Your task to perform on an android device: set default search engine in the chrome app Image 0: 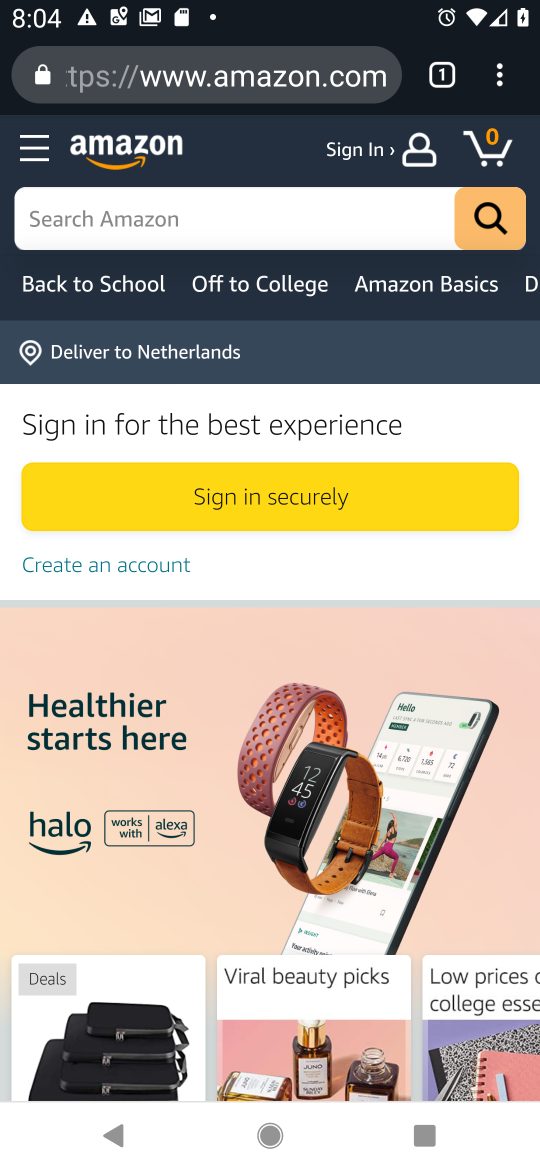
Step 0: press home button
Your task to perform on an android device: set default search engine in the chrome app Image 1: 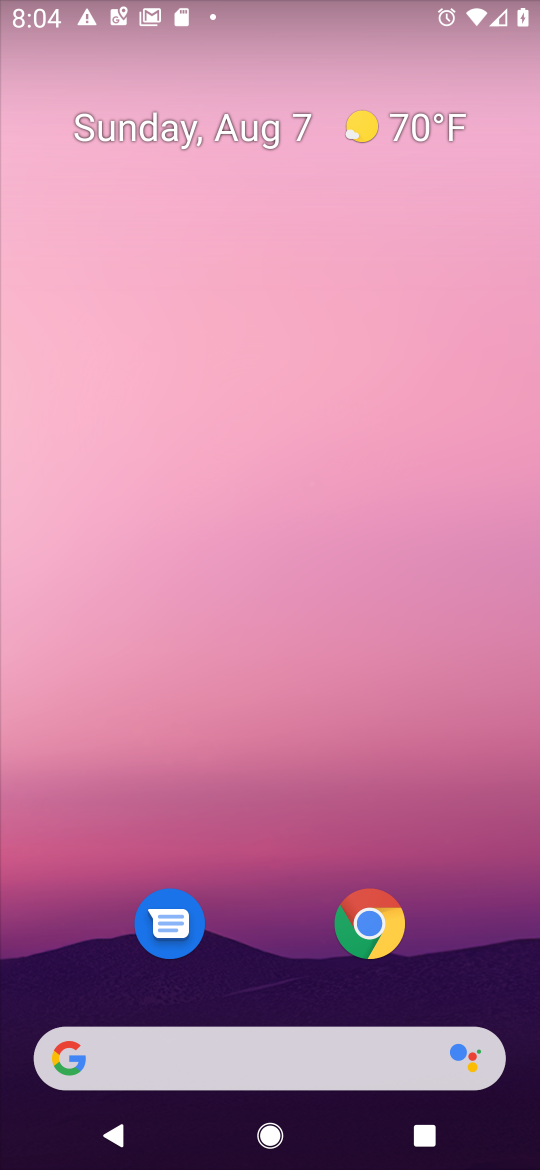
Step 1: drag from (475, 990) to (287, 211)
Your task to perform on an android device: set default search engine in the chrome app Image 2: 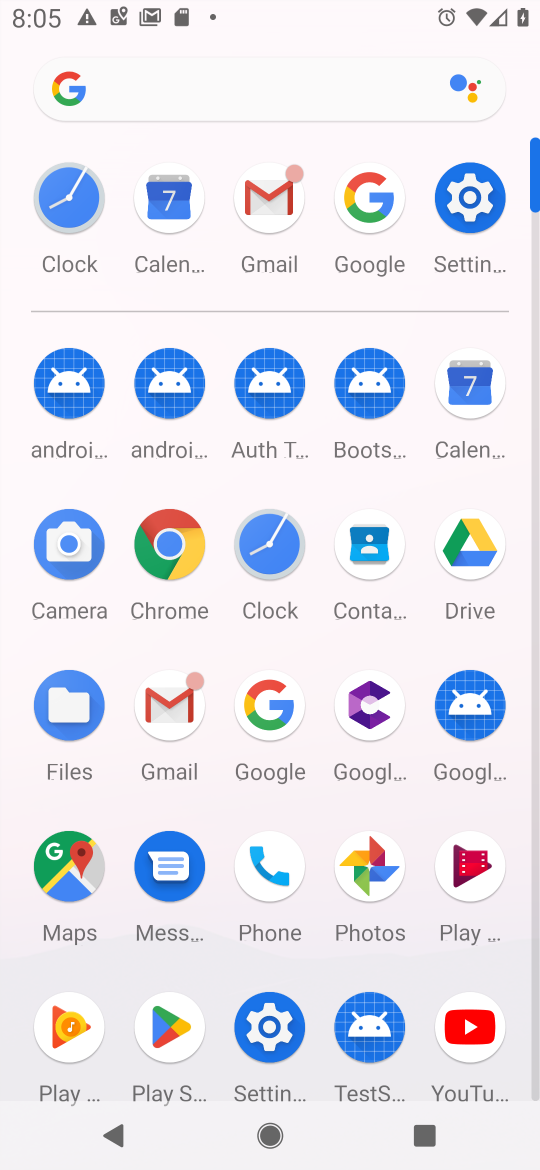
Step 2: click (174, 558)
Your task to perform on an android device: set default search engine in the chrome app Image 3: 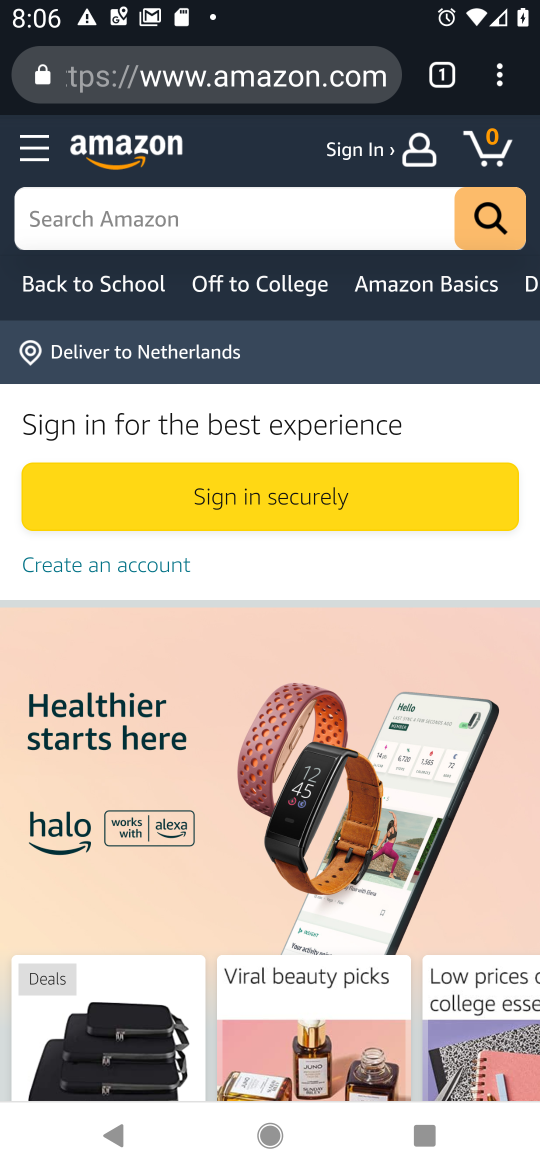
Step 3: click (502, 84)
Your task to perform on an android device: set default search engine in the chrome app Image 4: 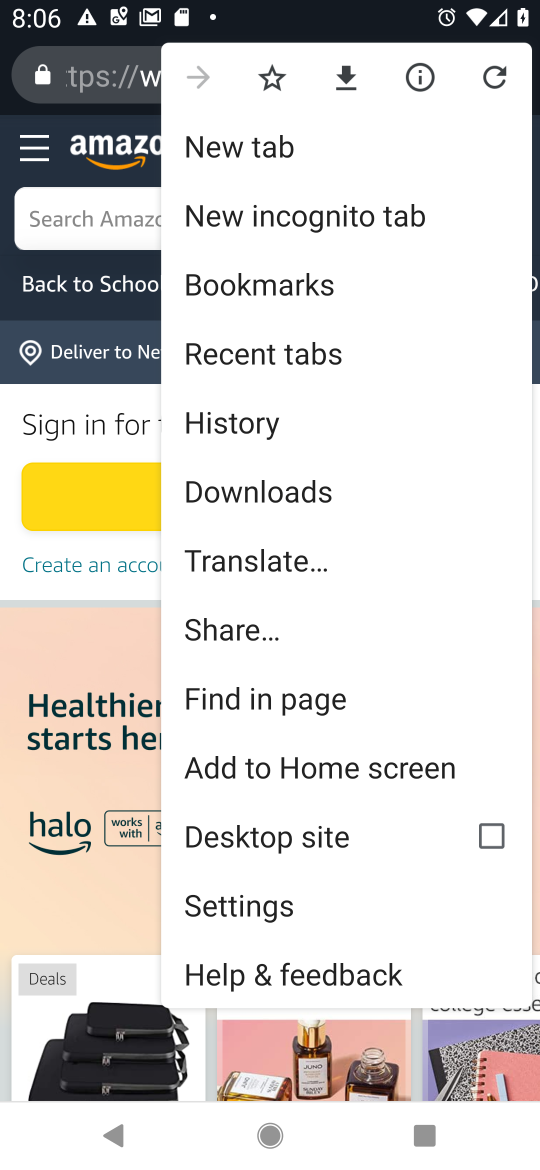
Step 4: click (247, 909)
Your task to perform on an android device: set default search engine in the chrome app Image 5: 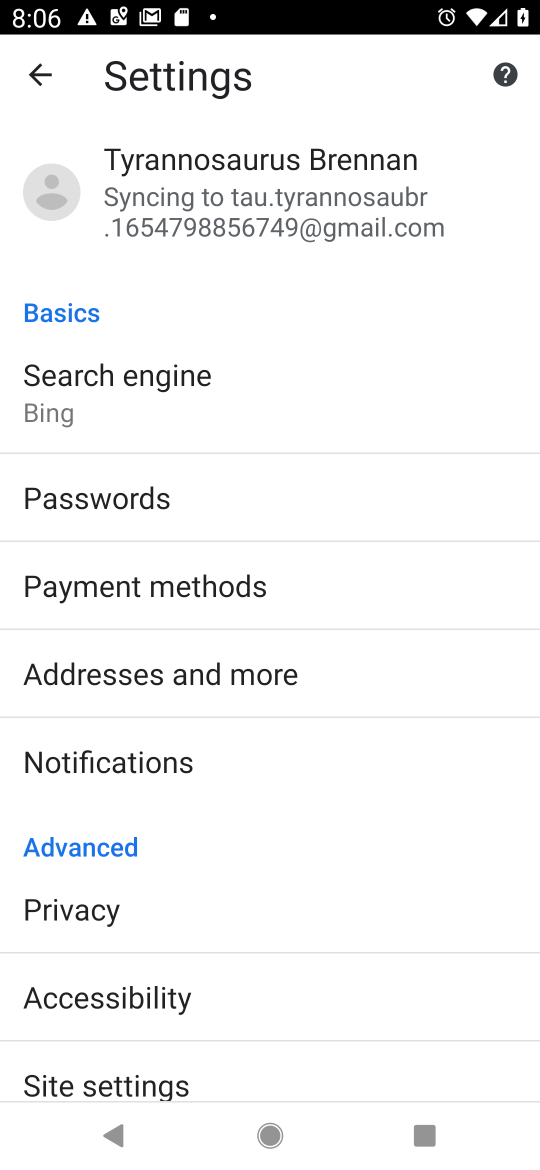
Step 5: drag from (173, 1035) to (250, 299)
Your task to perform on an android device: set default search engine in the chrome app Image 6: 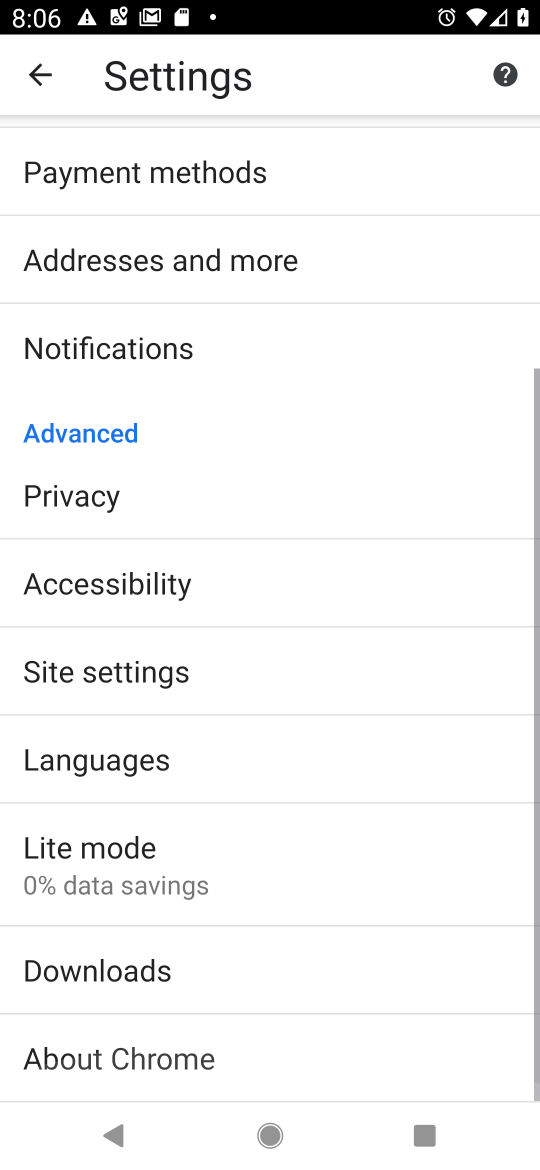
Step 6: drag from (238, 289) to (304, 1097)
Your task to perform on an android device: set default search engine in the chrome app Image 7: 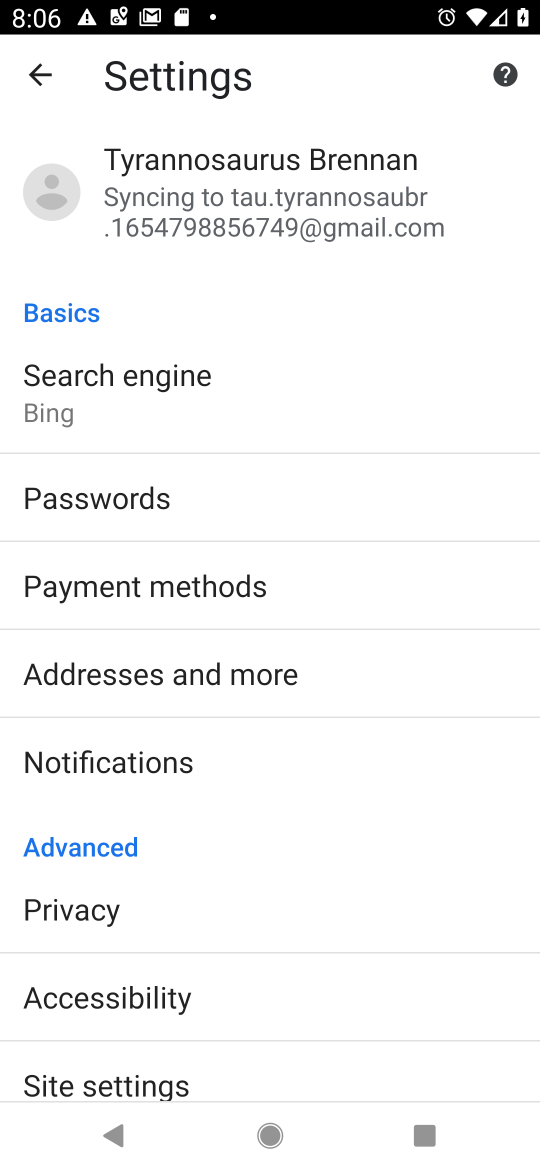
Step 7: click (157, 404)
Your task to perform on an android device: set default search engine in the chrome app Image 8: 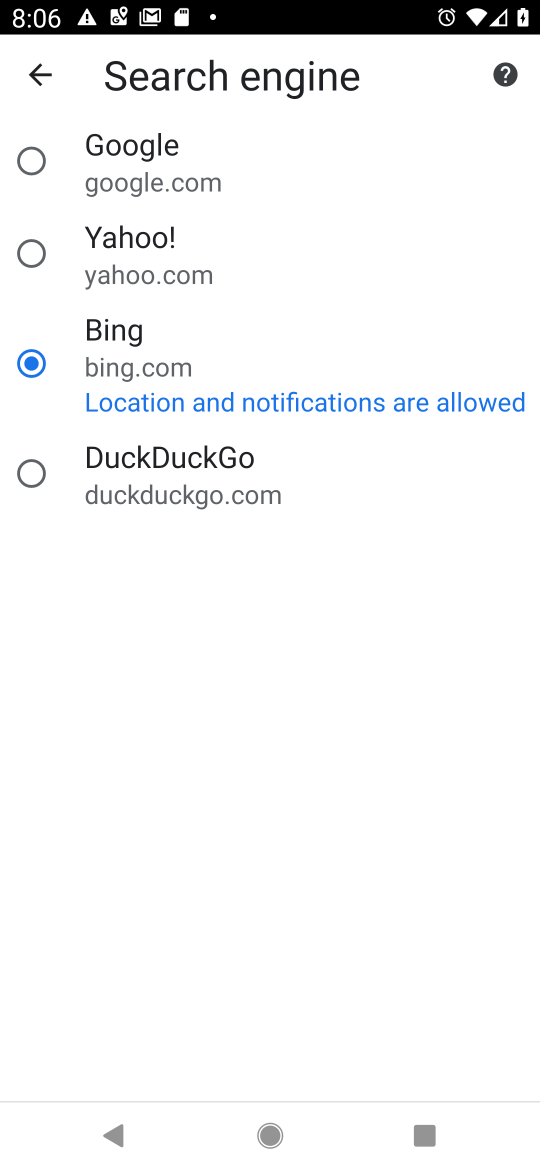
Step 8: click (106, 174)
Your task to perform on an android device: set default search engine in the chrome app Image 9: 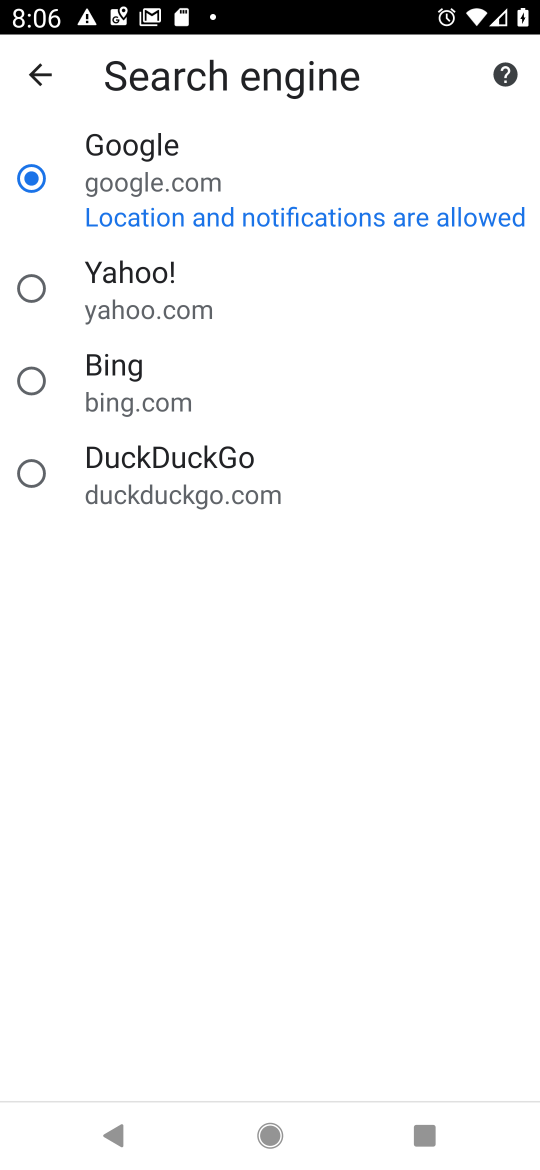
Step 9: task complete